Your task to perform on an android device: add a contact Image 0: 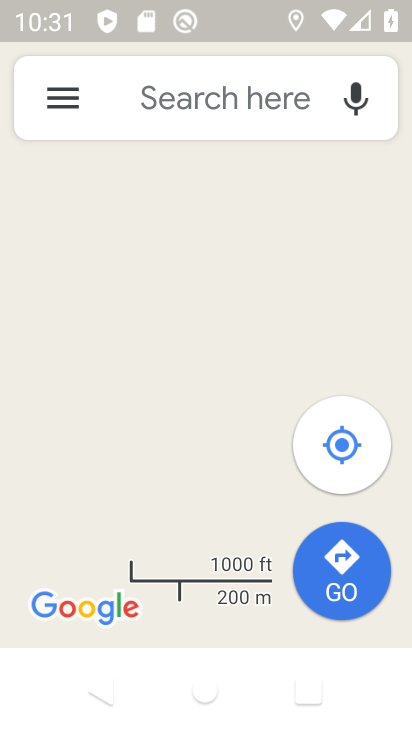
Step 0: press home button
Your task to perform on an android device: add a contact Image 1: 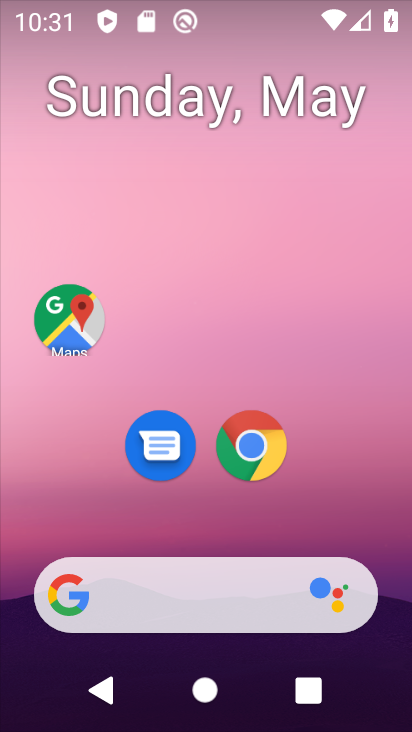
Step 1: drag from (317, 530) to (197, 51)
Your task to perform on an android device: add a contact Image 2: 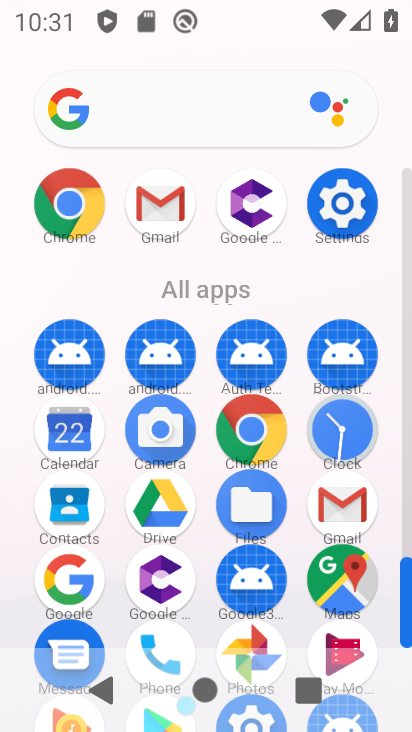
Step 2: drag from (204, 603) to (199, 355)
Your task to perform on an android device: add a contact Image 3: 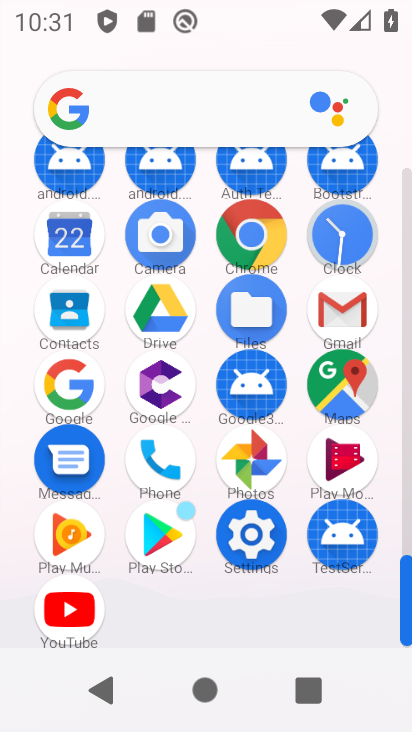
Step 3: click (68, 320)
Your task to perform on an android device: add a contact Image 4: 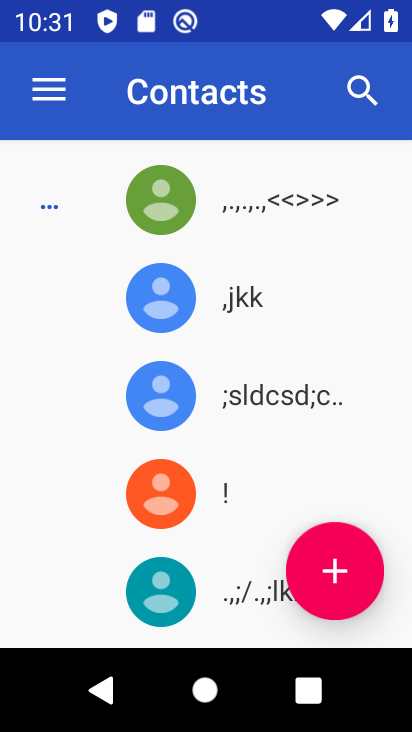
Step 4: click (348, 573)
Your task to perform on an android device: add a contact Image 5: 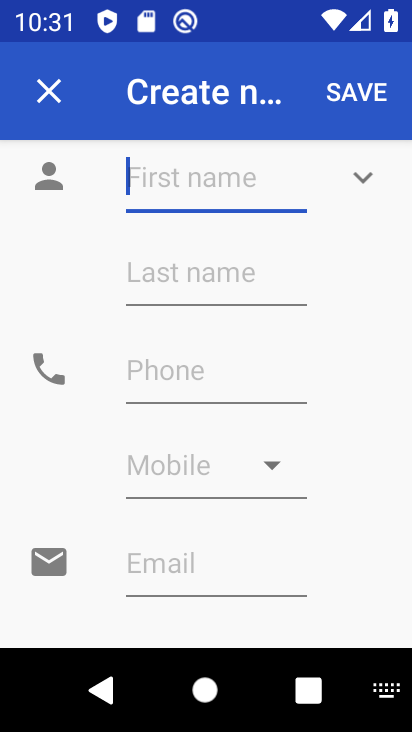
Step 5: type "hhfg"
Your task to perform on an android device: add a contact Image 6: 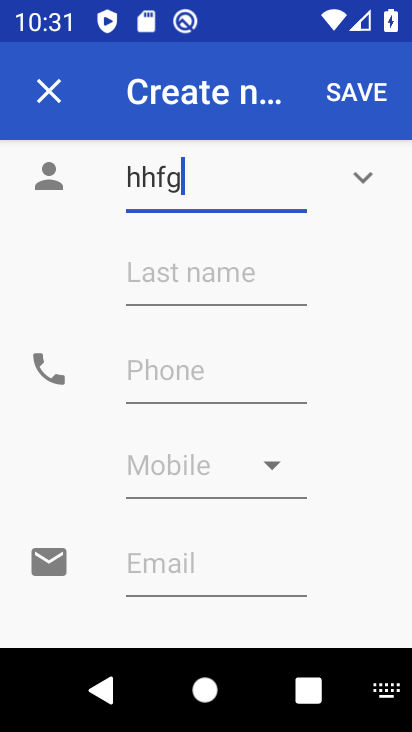
Step 6: type ""
Your task to perform on an android device: add a contact Image 7: 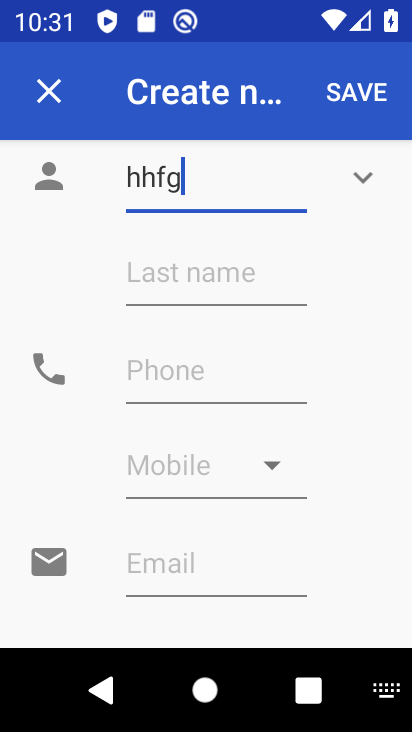
Step 7: click (179, 280)
Your task to perform on an android device: add a contact Image 8: 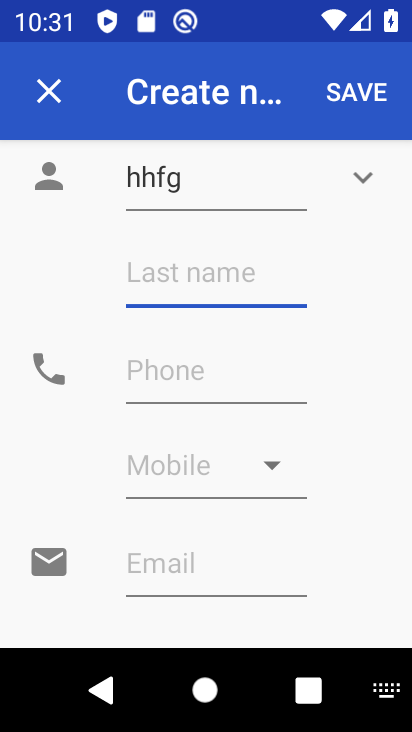
Step 8: type "ghdg"
Your task to perform on an android device: add a contact Image 9: 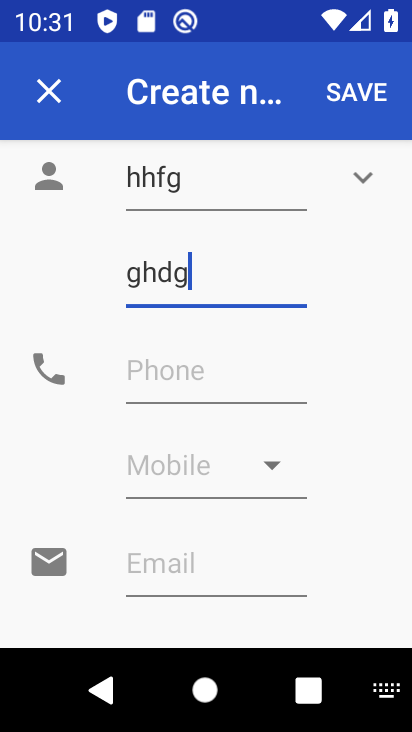
Step 9: type ""
Your task to perform on an android device: add a contact Image 10: 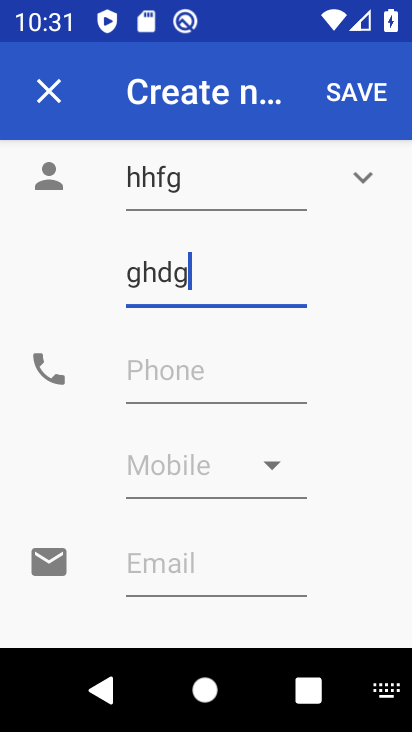
Step 10: click (237, 381)
Your task to perform on an android device: add a contact Image 11: 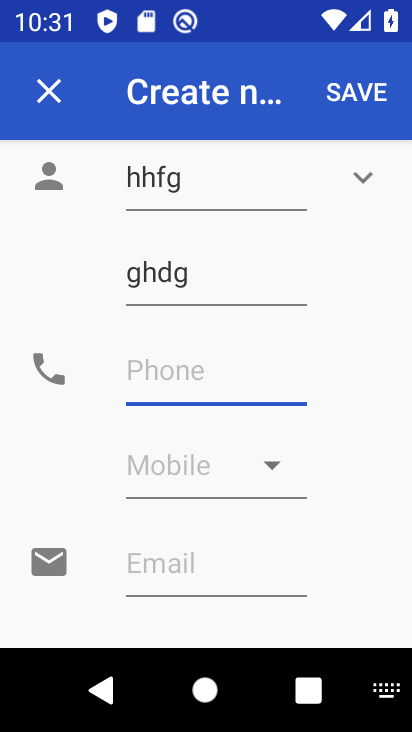
Step 11: type "56466456"
Your task to perform on an android device: add a contact Image 12: 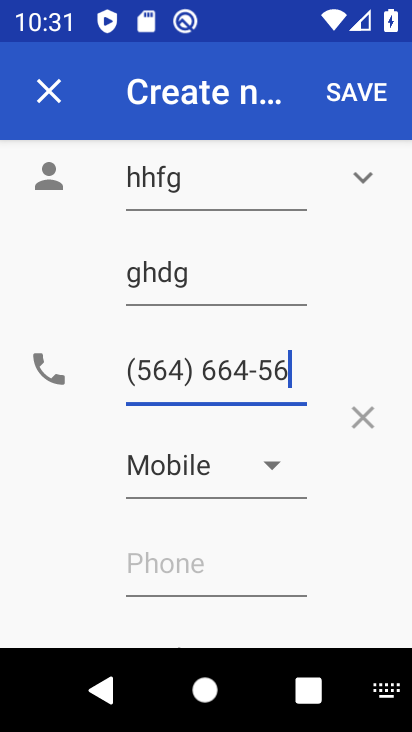
Step 12: click (330, 76)
Your task to perform on an android device: add a contact Image 13: 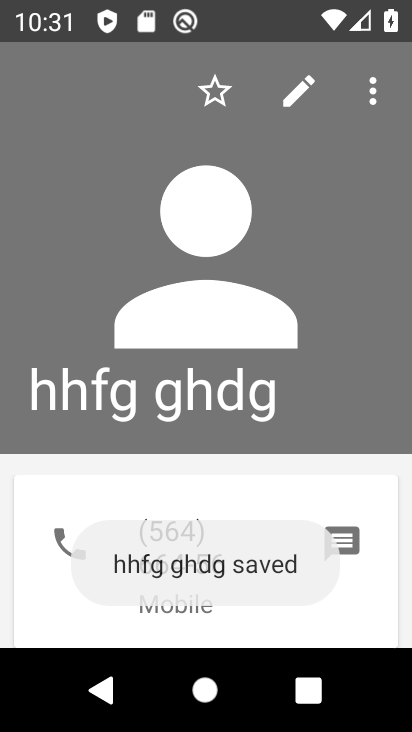
Step 13: task complete